Your task to perform on an android device: turn off wifi Image 0: 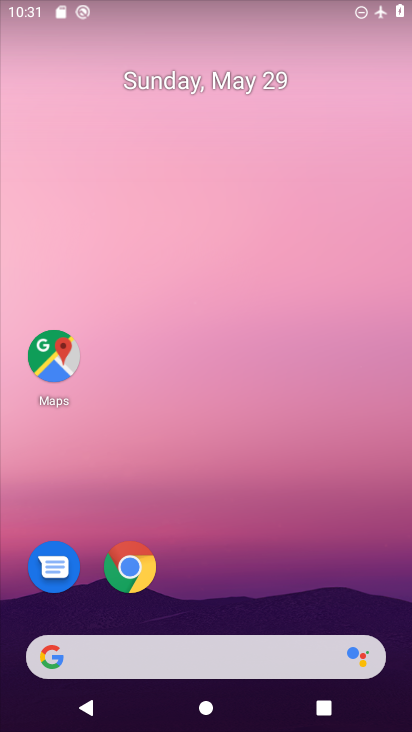
Step 0: drag from (397, 615) to (338, 47)
Your task to perform on an android device: turn off wifi Image 1: 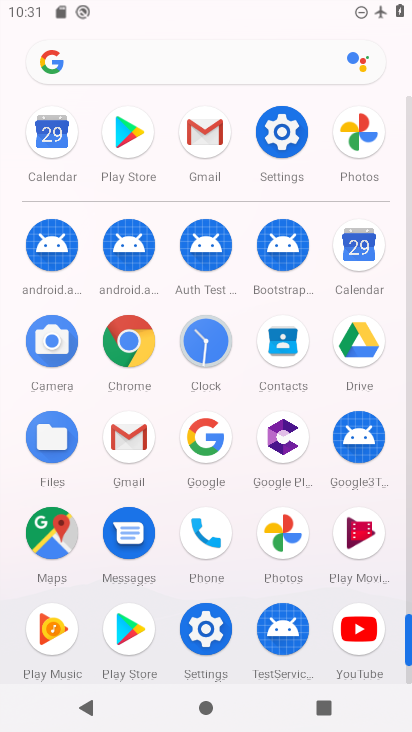
Step 1: click (204, 631)
Your task to perform on an android device: turn off wifi Image 2: 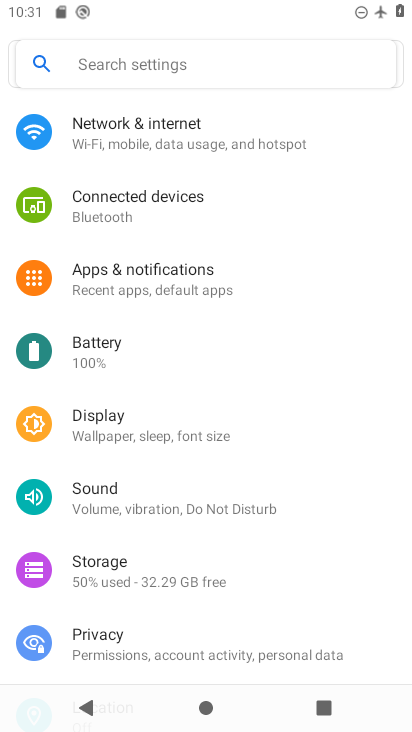
Step 2: click (144, 128)
Your task to perform on an android device: turn off wifi Image 3: 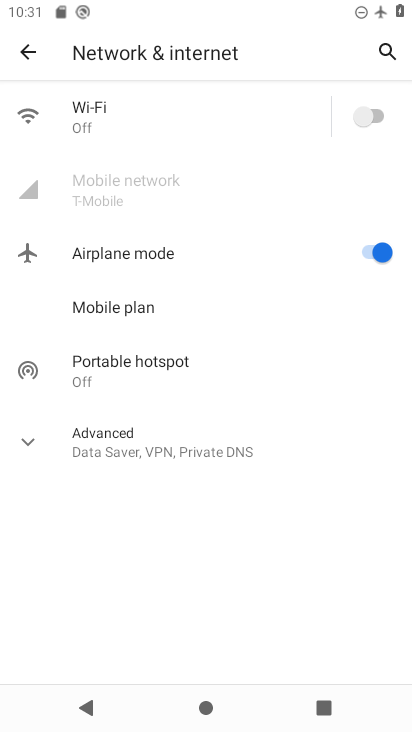
Step 3: task complete